Your task to perform on an android device: star an email in the gmail app Image 0: 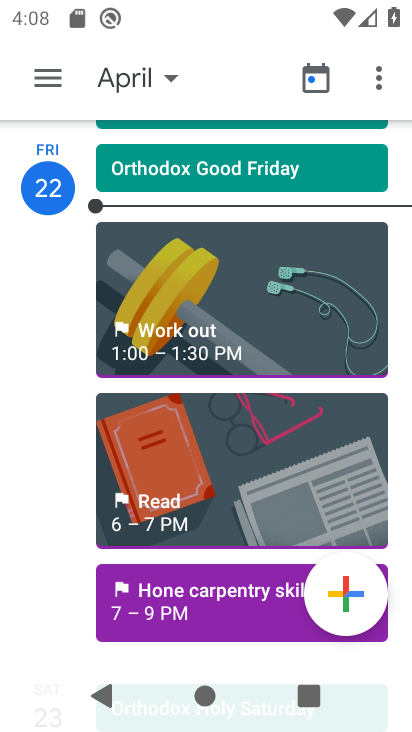
Step 0: press home button
Your task to perform on an android device: star an email in the gmail app Image 1: 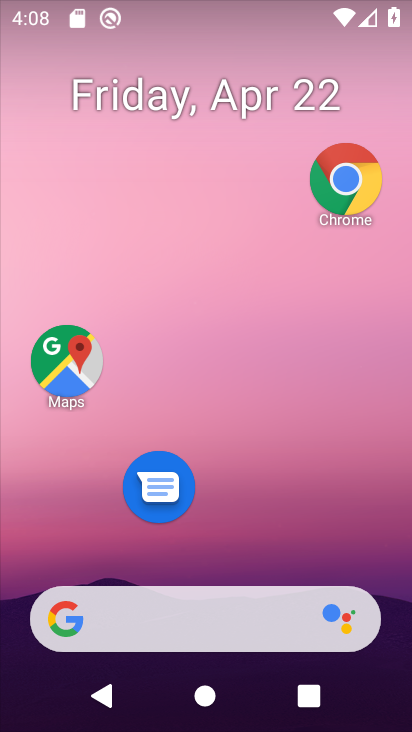
Step 1: drag from (276, 554) to (293, 8)
Your task to perform on an android device: star an email in the gmail app Image 2: 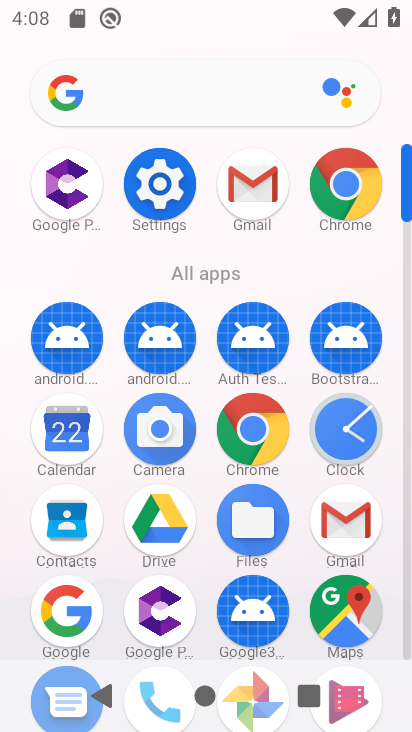
Step 2: click (249, 197)
Your task to perform on an android device: star an email in the gmail app Image 3: 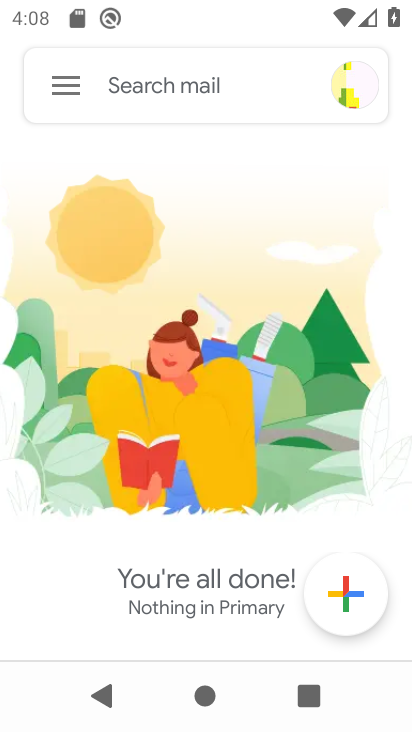
Step 3: click (70, 97)
Your task to perform on an android device: star an email in the gmail app Image 4: 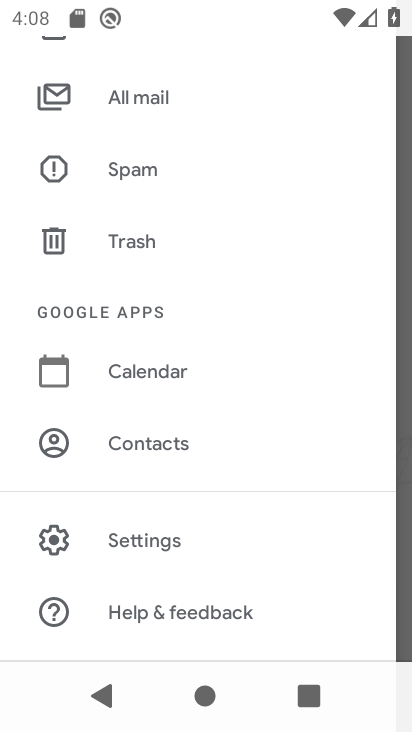
Step 4: drag from (181, 279) to (194, 506)
Your task to perform on an android device: star an email in the gmail app Image 5: 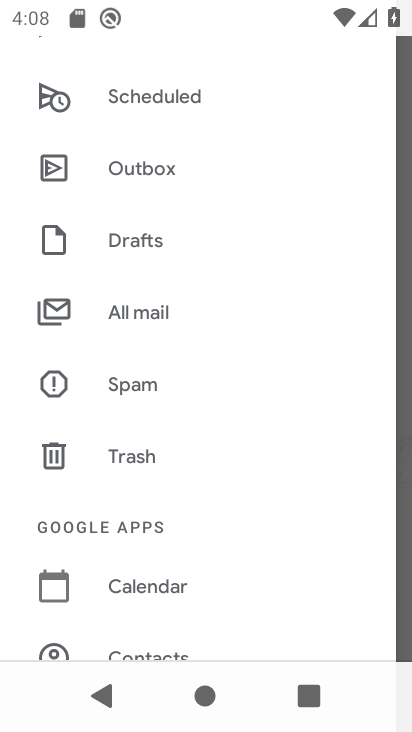
Step 5: drag from (212, 203) to (227, 450)
Your task to perform on an android device: star an email in the gmail app Image 6: 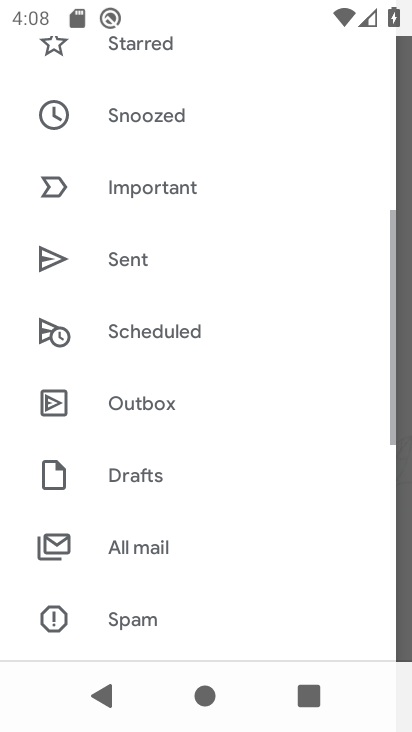
Step 6: drag from (205, 206) to (195, 442)
Your task to perform on an android device: star an email in the gmail app Image 7: 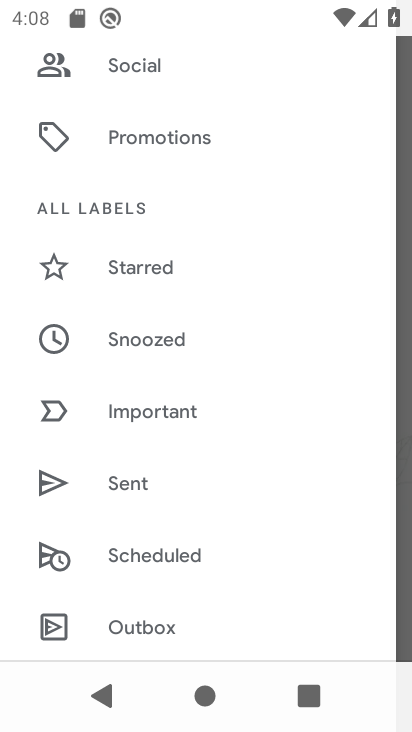
Step 7: drag from (178, 267) to (181, 192)
Your task to perform on an android device: star an email in the gmail app Image 8: 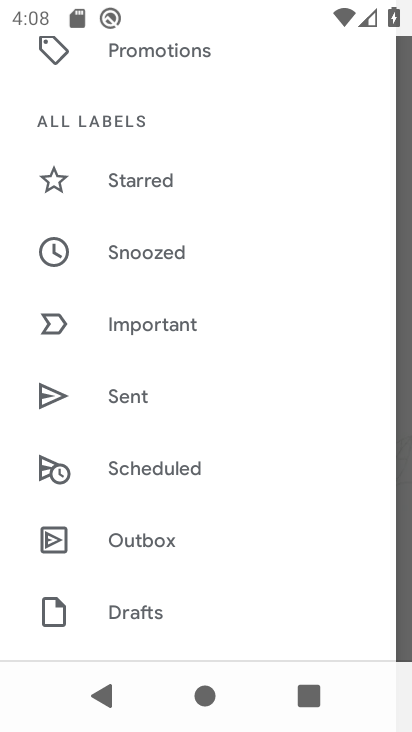
Step 8: drag from (172, 477) to (203, 316)
Your task to perform on an android device: star an email in the gmail app Image 9: 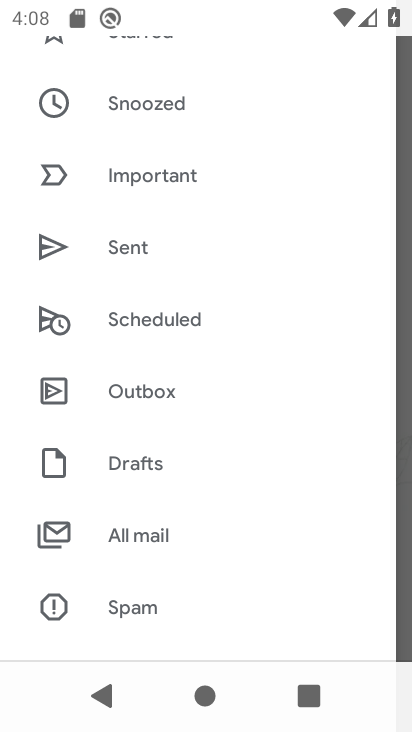
Step 9: click (171, 525)
Your task to perform on an android device: star an email in the gmail app Image 10: 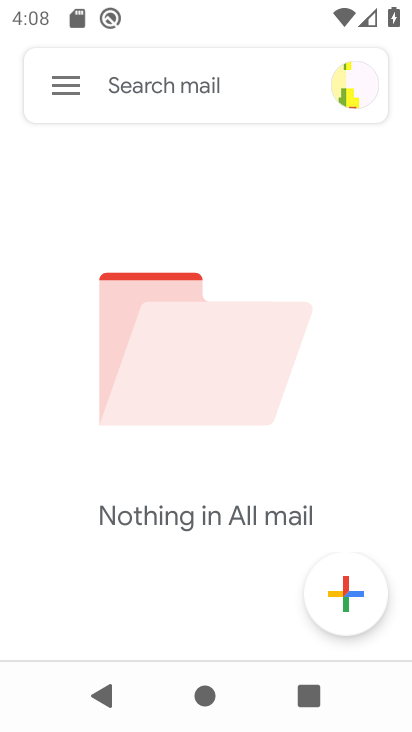
Step 10: task complete